Your task to perform on an android device: turn on airplane mode Image 0: 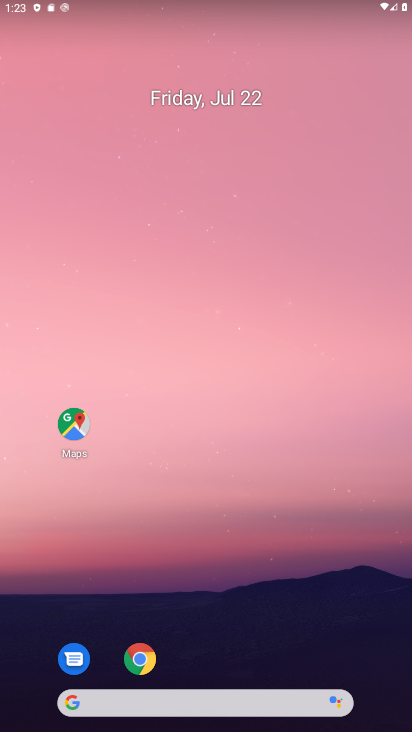
Step 0: drag from (287, 641) to (250, 110)
Your task to perform on an android device: turn on airplane mode Image 1: 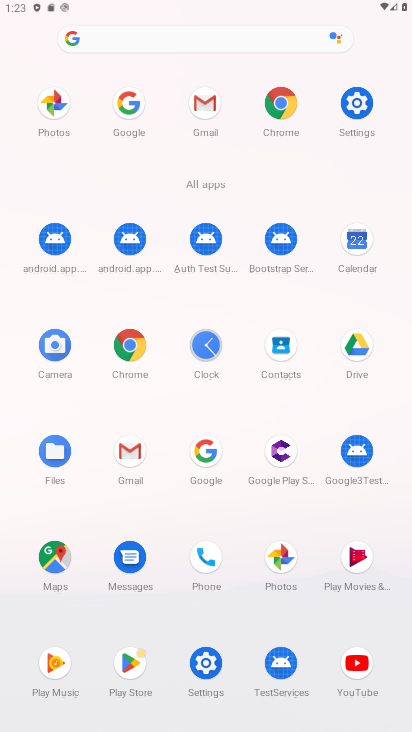
Step 1: click (360, 104)
Your task to perform on an android device: turn on airplane mode Image 2: 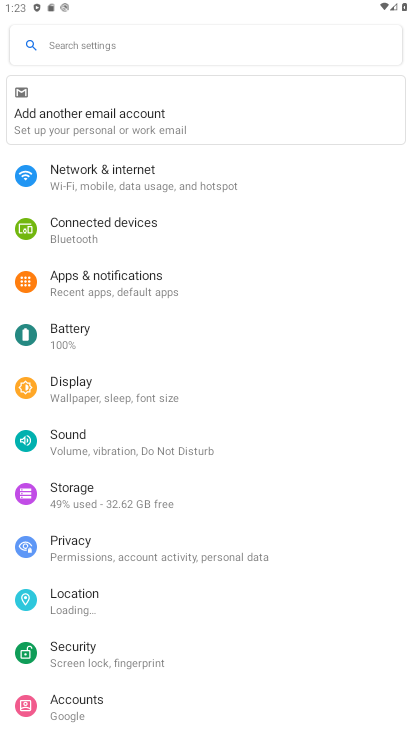
Step 2: click (178, 177)
Your task to perform on an android device: turn on airplane mode Image 3: 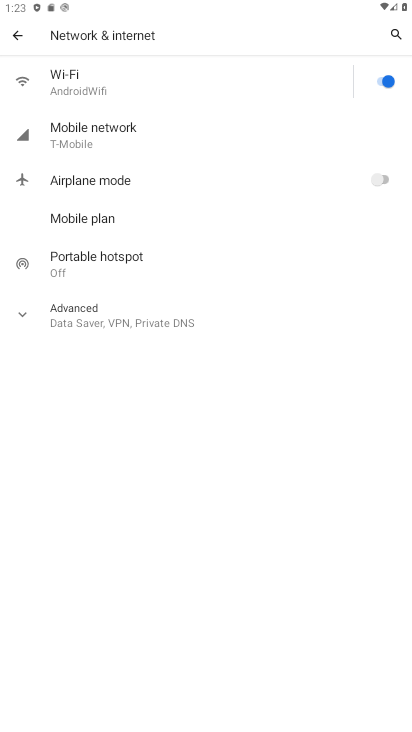
Step 3: click (388, 182)
Your task to perform on an android device: turn on airplane mode Image 4: 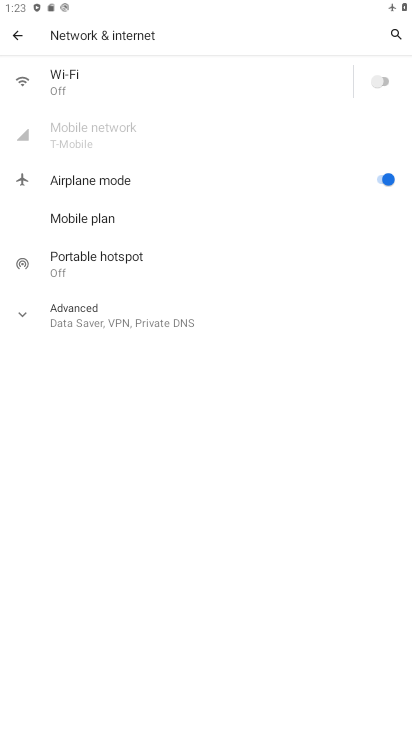
Step 4: task complete